Your task to perform on an android device: turn notification dots on Image 0: 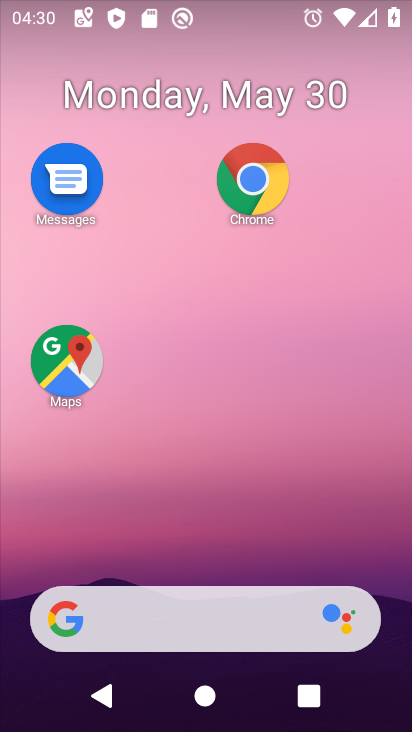
Step 0: drag from (229, 541) to (272, 0)
Your task to perform on an android device: turn notification dots on Image 1: 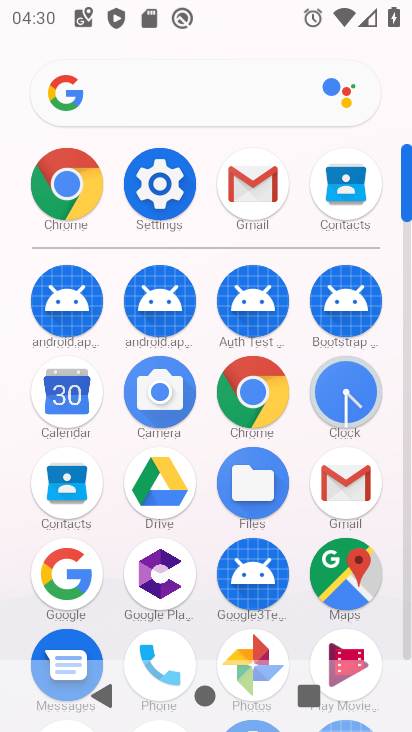
Step 1: click (141, 178)
Your task to perform on an android device: turn notification dots on Image 2: 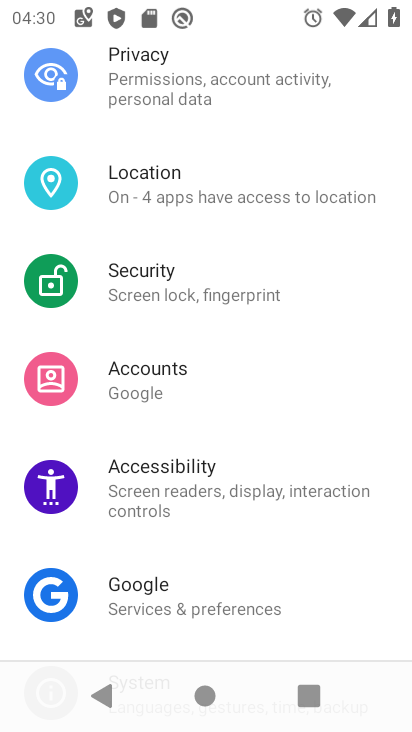
Step 2: drag from (166, 255) to (161, 616)
Your task to perform on an android device: turn notification dots on Image 3: 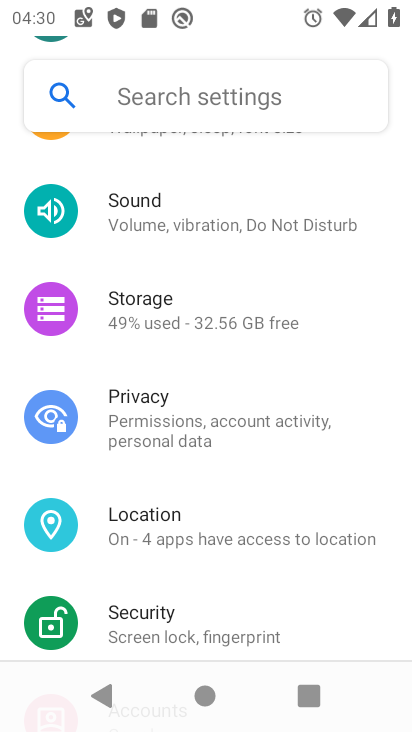
Step 3: drag from (158, 311) to (152, 686)
Your task to perform on an android device: turn notification dots on Image 4: 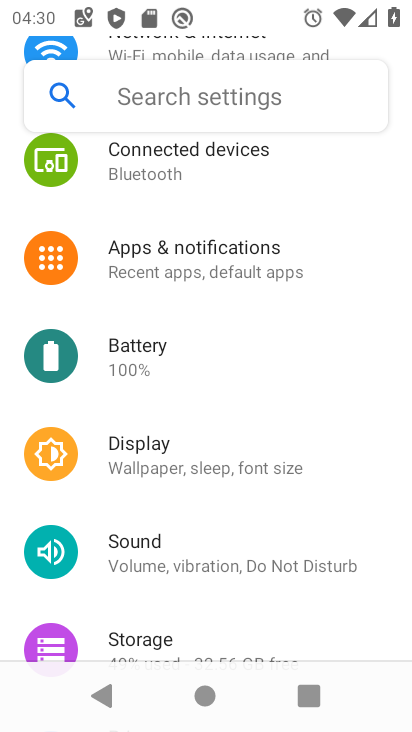
Step 4: click (136, 276)
Your task to perform on an android device: turn notification dots on Image 5: 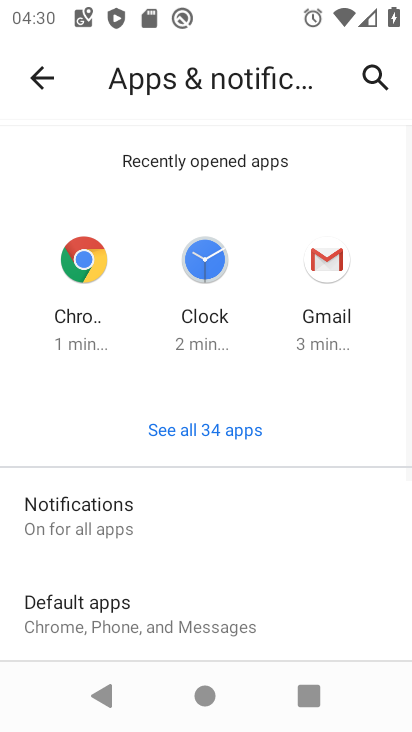
Step 5: click (66, 516)
Your task to perform on an android device: turn notification dots on Image 6: 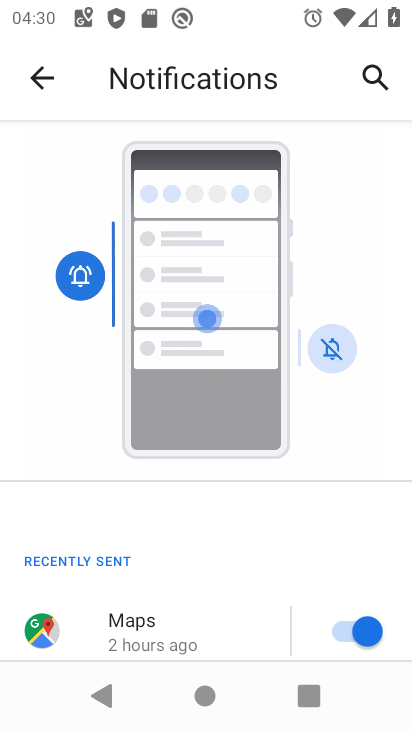
Step 6: drag from (245, 590) to (255, 148)
Your task to perform on an android device: turn notification dots on Image 7: 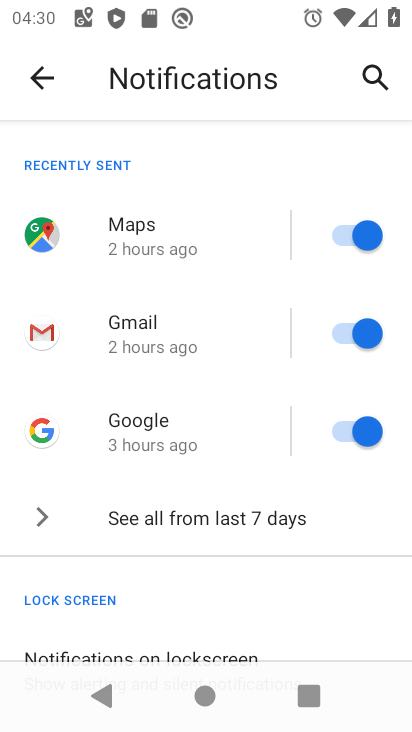
Step 7: drag from (143, 615) to (158, 219)
Your task to perform on an android device: turn notification dots on Image 8: 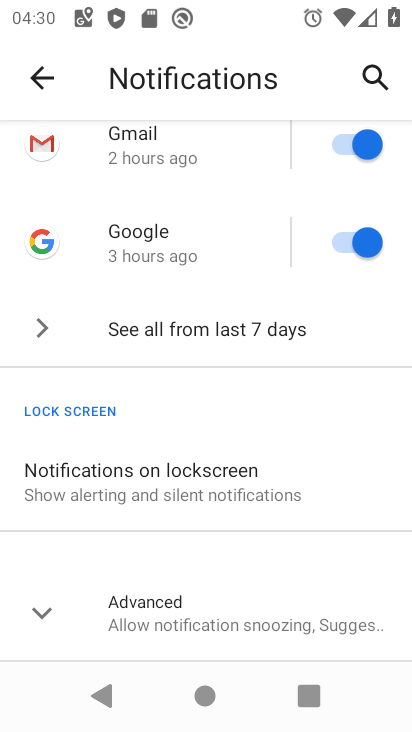
Step 8: click (138, 619)
Your task to perform on an android device: turn notification dots on Image 9: 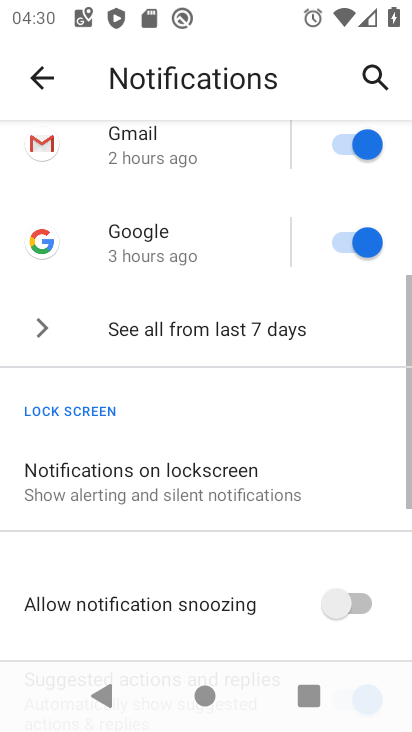
Step 9: drag from (150, 619) to (181, 248)
Your task to perform on an android device: turn notification dots on Image 10: 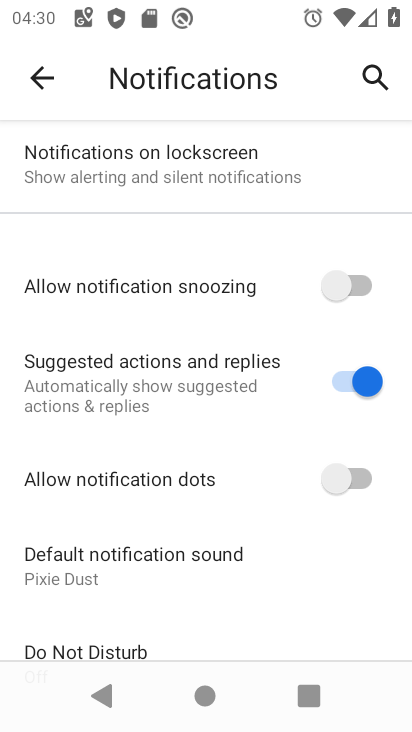
Step 10: click (374, 480)
Your task to perform on an android device: turn notification dots on Image 11: 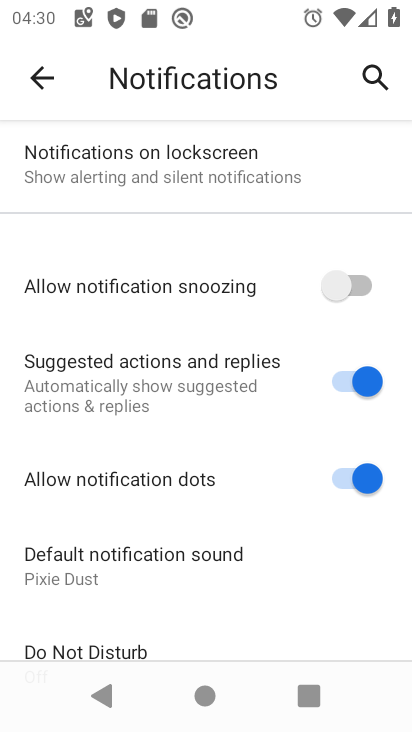
Step 11: task complete